Your task to perform on an android device: What's the weather going to be tomorrow? Image 0: 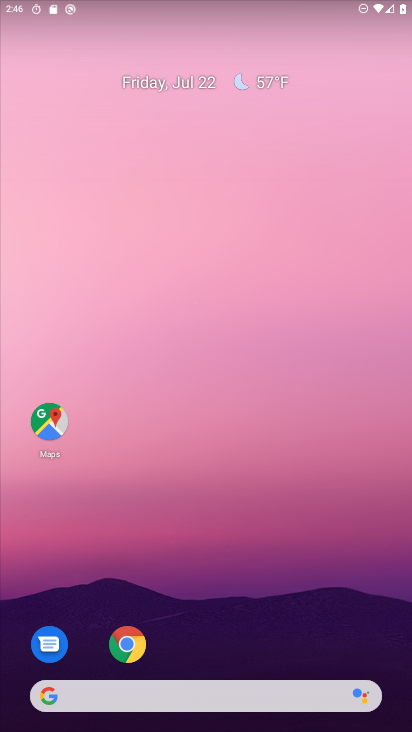
Step 0: drag from (216, 626) to (197, 168)
Your task to perform on an android device: What's the weather going to be tomorrow? Image 1: 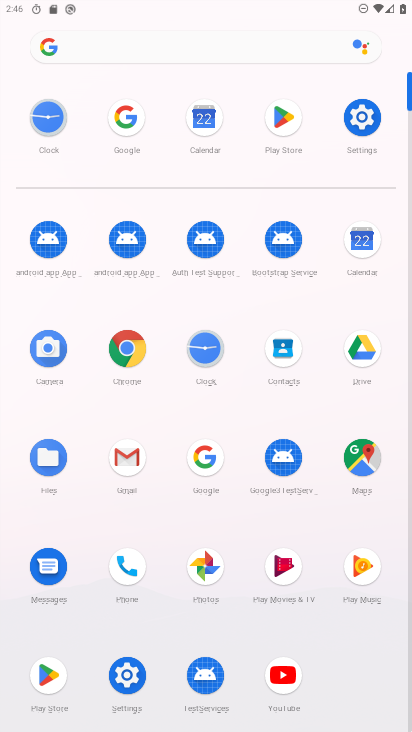
Step 1: click (207, 471)
Your task to perform on an android device: What's the weather going to be tomorrow? Image 2: 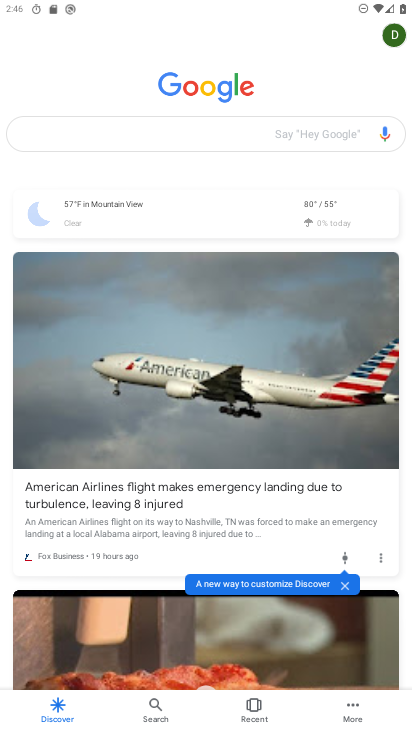
Step 2: click (183, 143)
Your task to perform on an android device: What's the weather going to be tomorrow? Image 3: 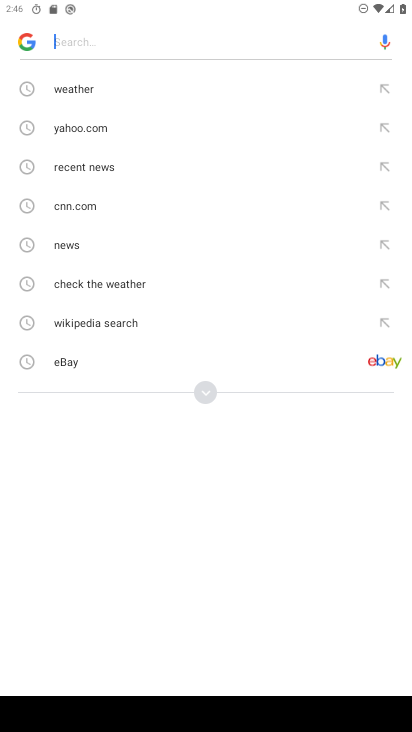
Step 3: click (96, 75)
Your task to perform on an android device: What's the weather going to be tomorrow? Image 4: 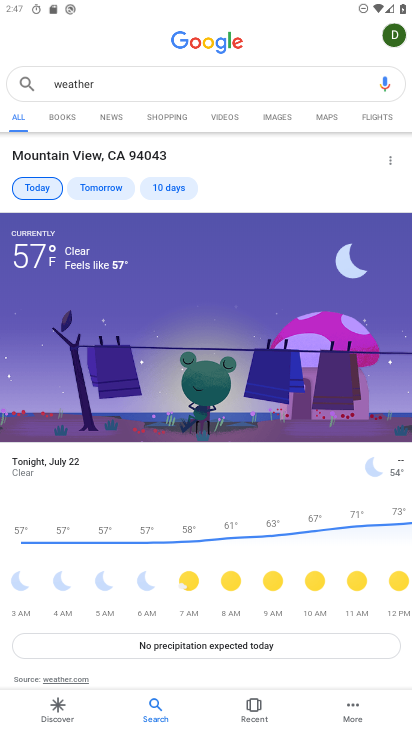
Step 4: click (85, 191)
Your task to perform on an android device: What's the weather going to be tomorrow? Image 5: 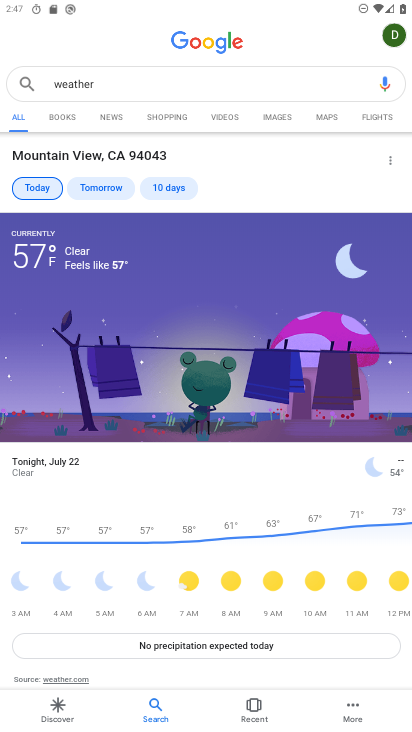
Step 5: click (94, 200)
Your task to perform on an android device: What's the weather going to be tomorrow? Image 6: 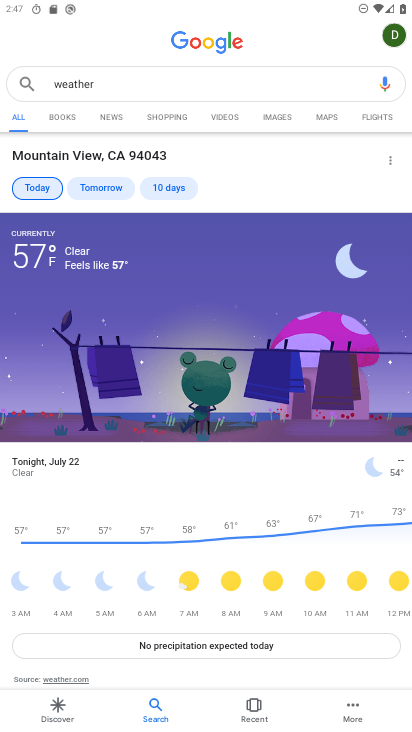
Step 6: task complete